Your task to perform on an android device: turn pop-ups on in chrome Image 0: 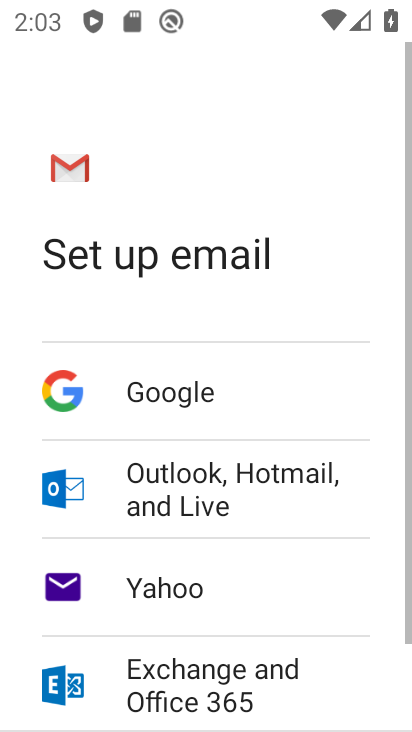
Step 0: press home button
Your task to perform on an android device: turn pop-ups on in chrome Image 1: 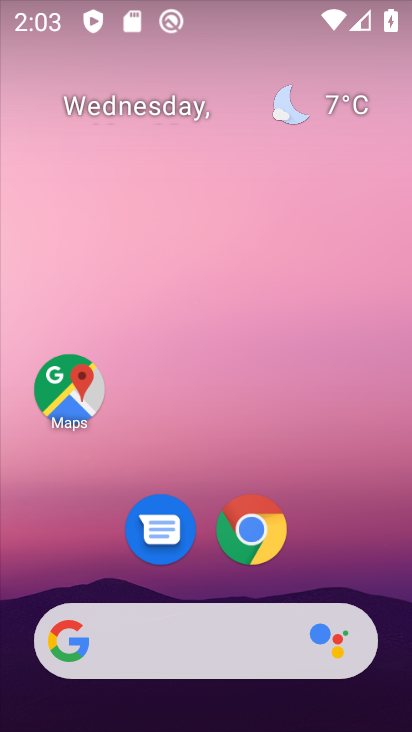
Step 1: drag from (360, 558) to (284, 8)
Your task to perform on an android device: turn pop-ups on in chrome Image 2: 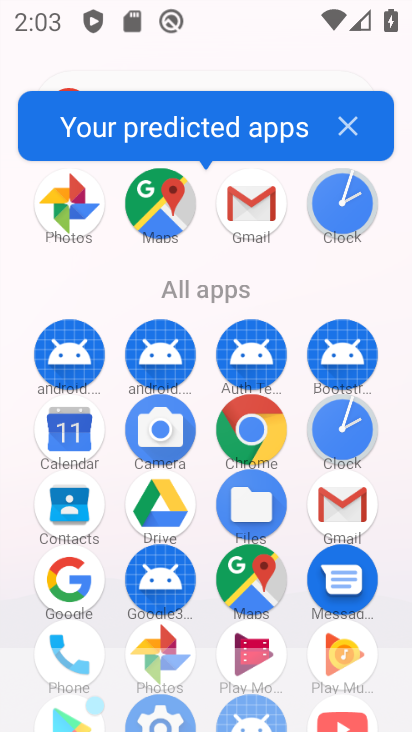
Step 2: click (259, 422)
Your task to perform on an android device: turn pop-ups on in chrome Image 3: 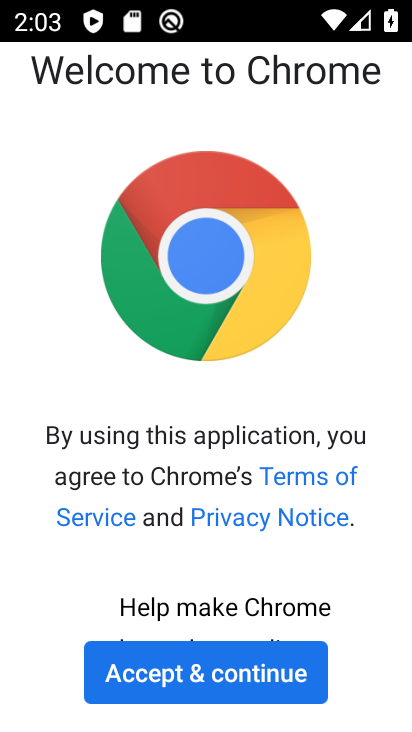
Step 3: click (205, 672)
Your task to perform on an android device: turn pop-ups on in chrome Image 4: 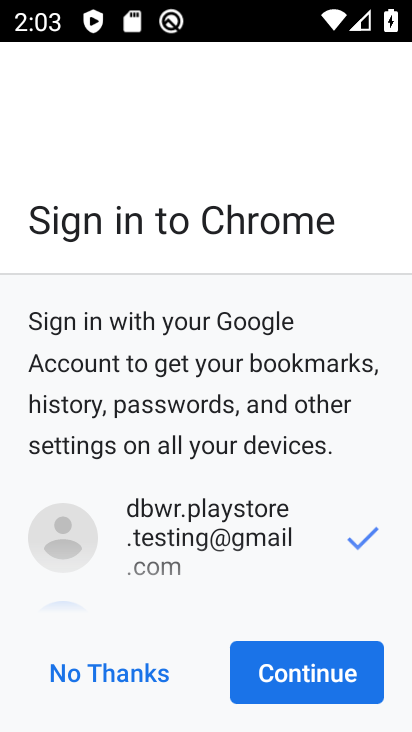
Step 4: click (119, 683)
Your task to perform on an android device: turn pop-ups on in chrome Image 5: 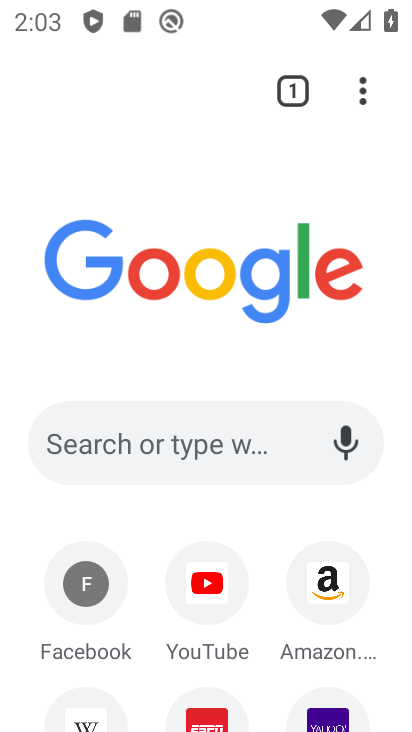
Step 5: drag from (362, 88) to (172, 545)
Your task to perform on an android device: turn pop-ups on in chrome Image 6: 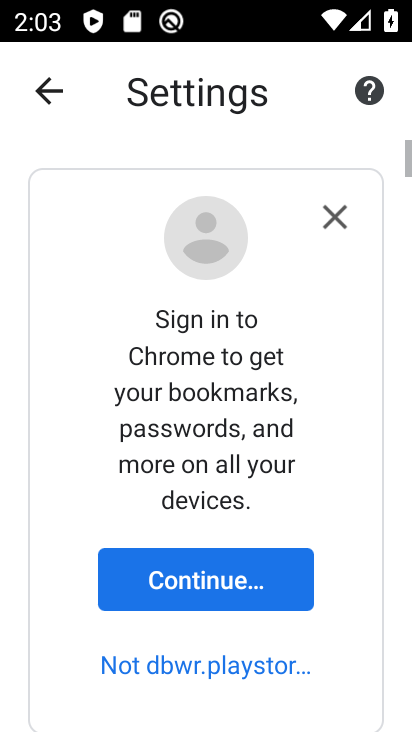
Step 6: click (189, 581)
Your task to perform on an android device: turn pop-ups on in chrome Image 7: 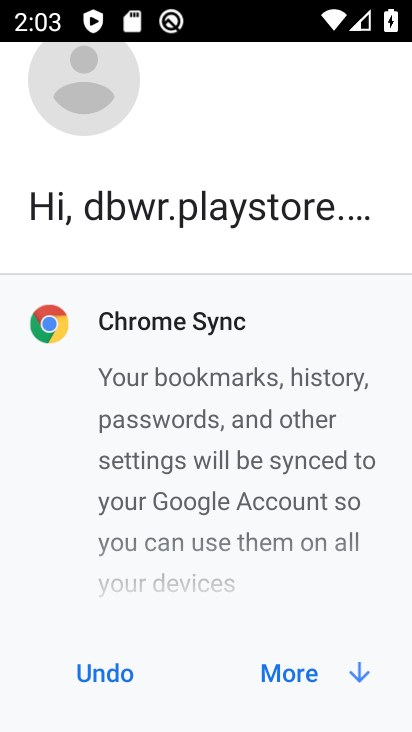
Step 7: click (287, 657)
Your task to perform on an android device: turn pop-ups on in chrome Image 8: 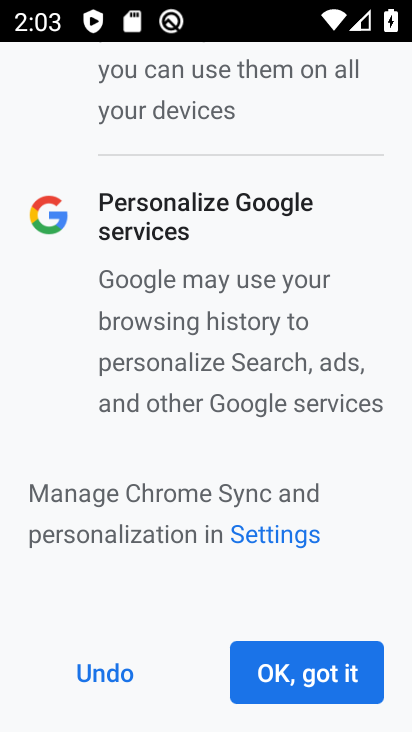
Step 8: click (297, 662)
Your task to perform on an android device: turn pop-ups on in chrome Image 9: 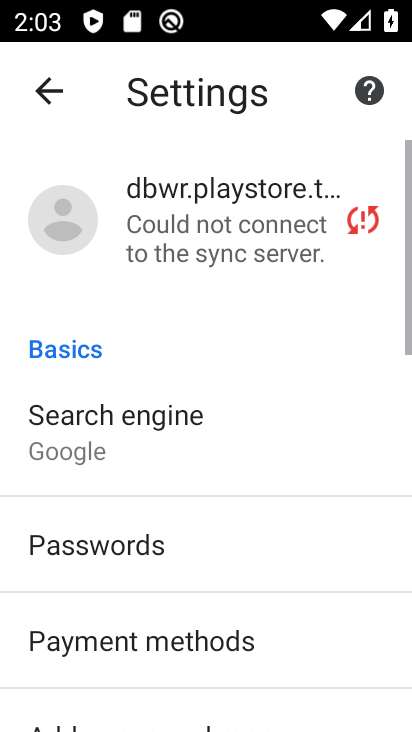
Step 9: drag from (277, 606) to (158, 10)
Your task to perform on an android device: turn pop-ups on in chrome Image 10: 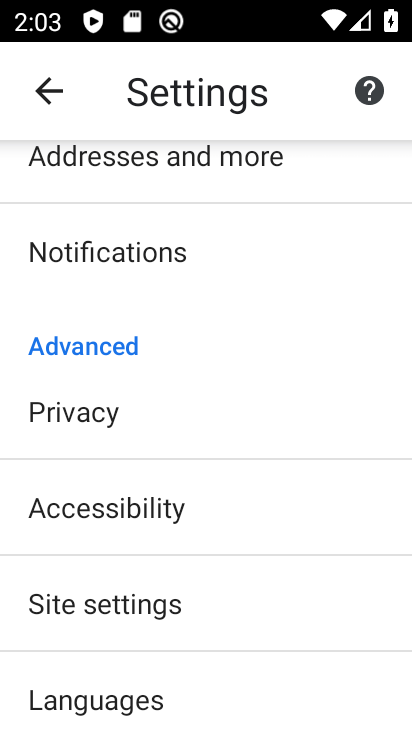
Step 10: drag from (259, 175) to (201, 2)
Your task to perform on an android device: turn pop-ups on in chrome Image 11: 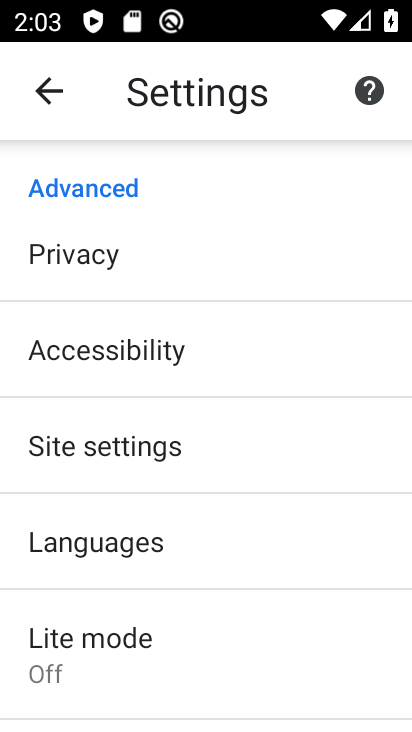
Step 11: click (144, 433)
Your task to perform on an android device: turn pop-ups on in chrome Image 12: 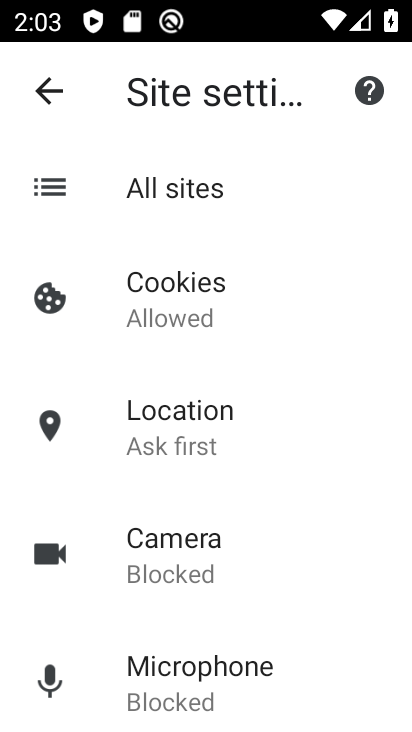
Step 12: drag from (244, 605) to (192, 287)
Your task to perform on an android device: turn pop-ups on in chrome Image 13: 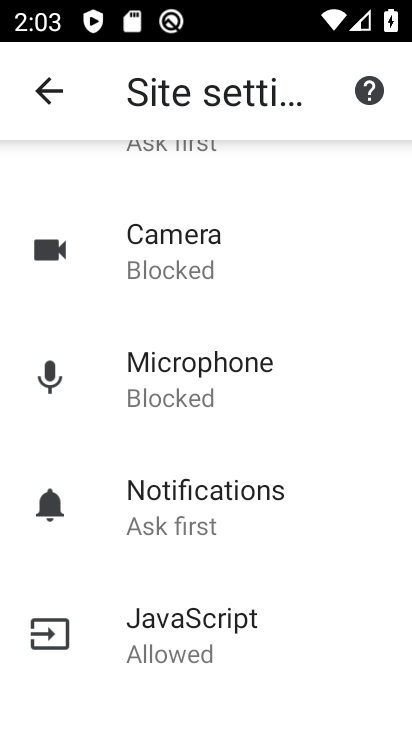
Step 13: drag from (220, 619) to (163, 241)
Your task to perform on an android device: turn pop-ups on in chrome Image 14: 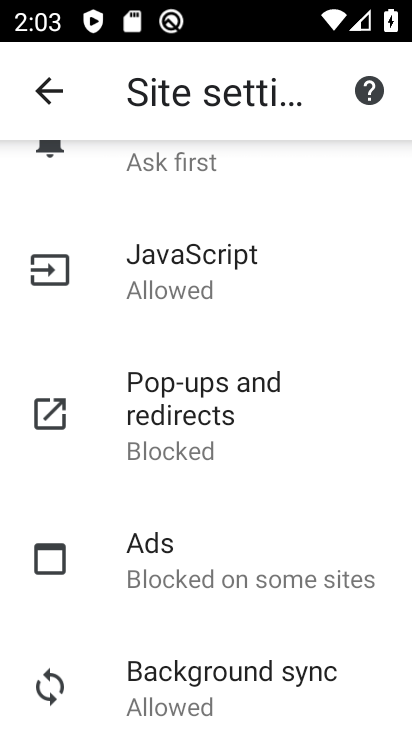
Step 14: click (186, 446)
Your task to perform on an android device: turn pop-ups on in chrome Image 15: 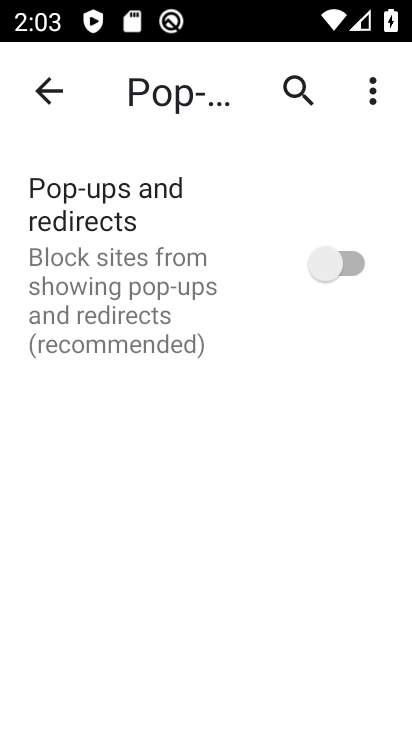
Step 15: click (355, 276)
Your task to perform on an android device: turn pop-ups on in chrome Image 16: 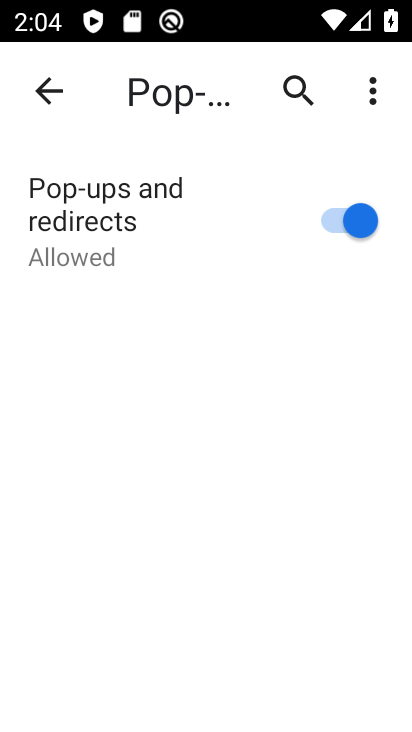
Step 16: task complete